Your task to perform on an android device: Turn off the flashlight Image 0: 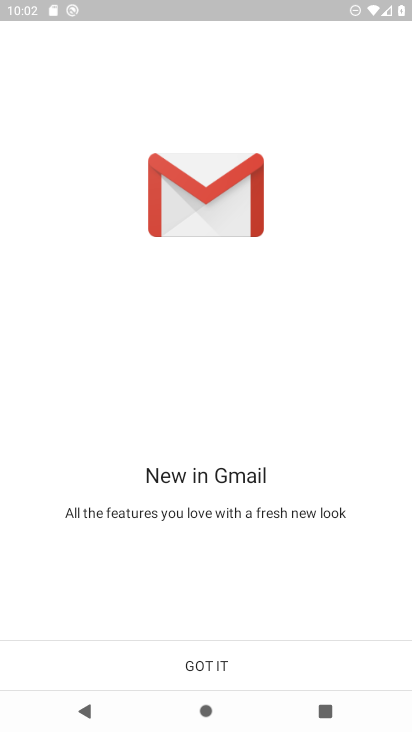
Step 0: press home button
Your task to perform on an android device: Turn off the flashlight Image 1: 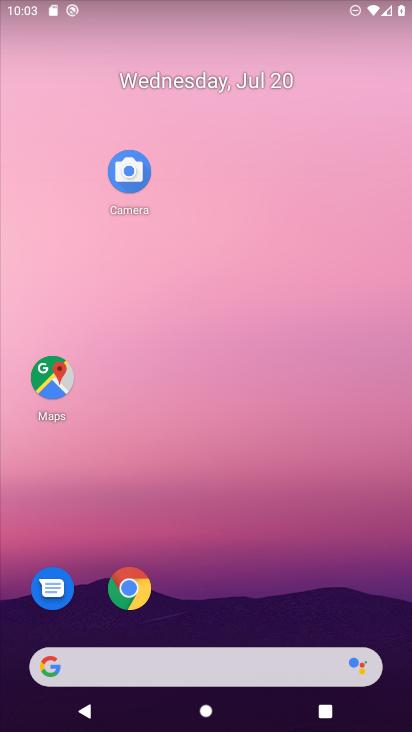
Step 1: drag from (201, 43) to (250, 727)
Your task to perform on an android device: Turn off the flashlight Image 2: 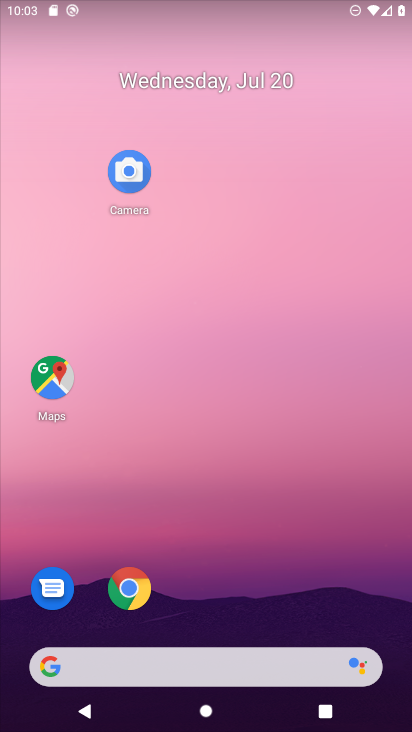
Step 2: click (289, 568)
Your task to perform on an android device: Turn off the flashlight Image 3: 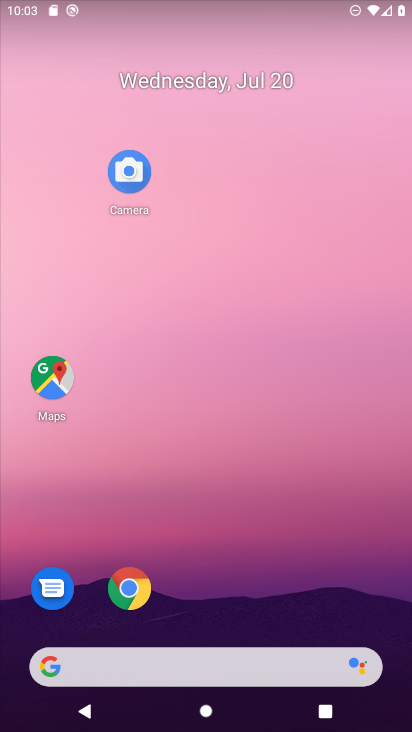
Step 3: task complete